Your task to perform on an android device: Open Reddit.com Image 0: 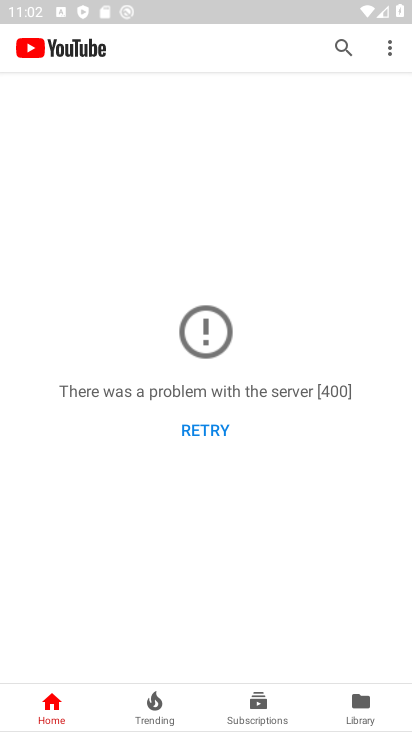
Step 0: press home button
Your task to perform on an android device: Open Reddit.com Image 1: 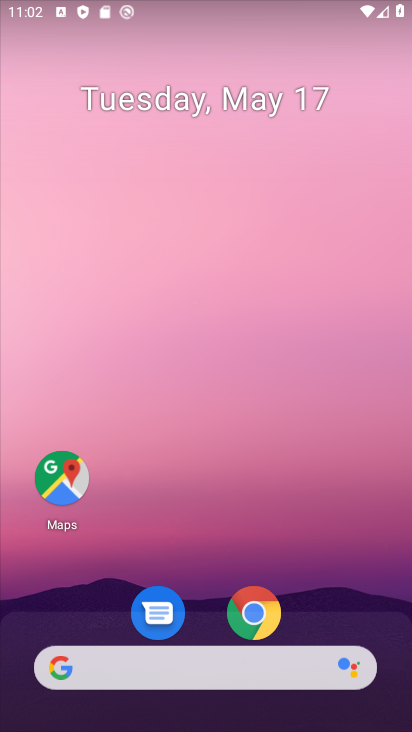
Step 1: click (259, 607)
Your task to perform on an android device: Open Reddit.com Image 2: 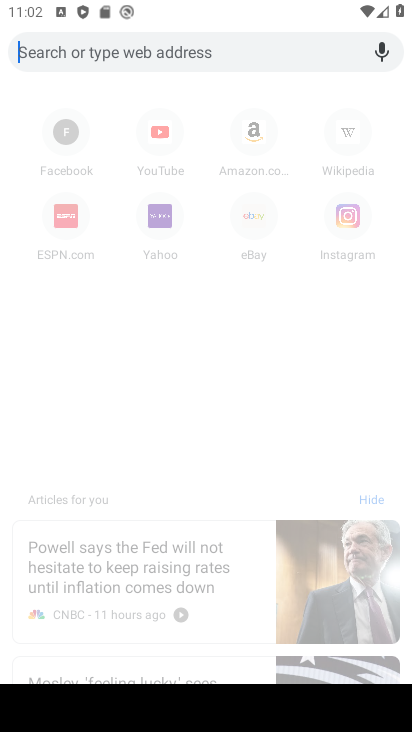
Step 2: type "Reddit.com"
Your task to perform on an android device: Open Reddit.com Image 3: 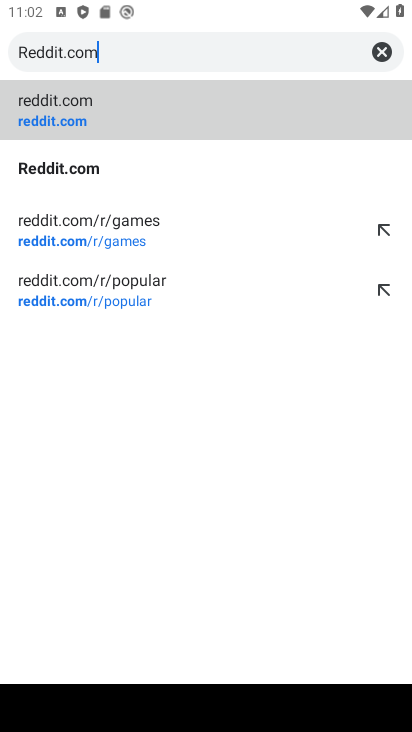
Step 3: click (179, 105)
Your task to perform on an android device: Open Reddit.com Image 4: 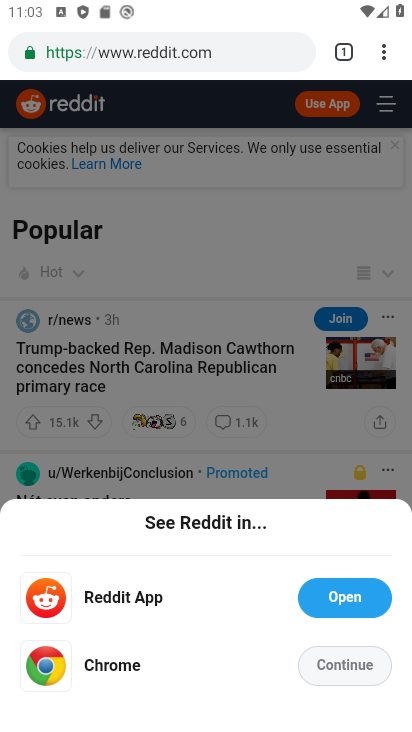
Step 4: task complete